Your task to perform on an android device: open wifi settings Image 0: 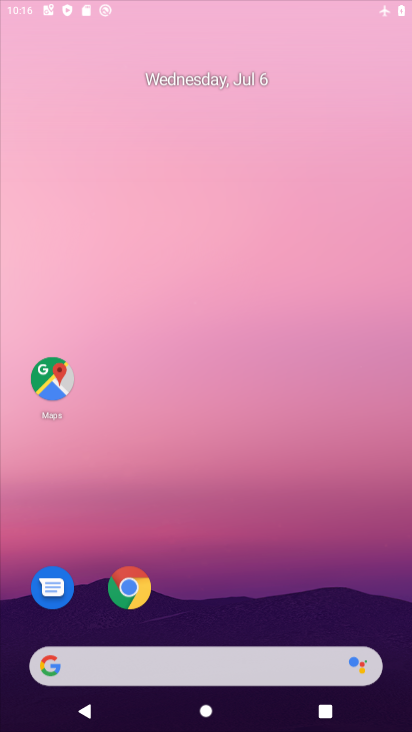
Step 0: drag from (245, 396) to (242, 214)
Your task to perform on an android device: open wifi settings Image 1: 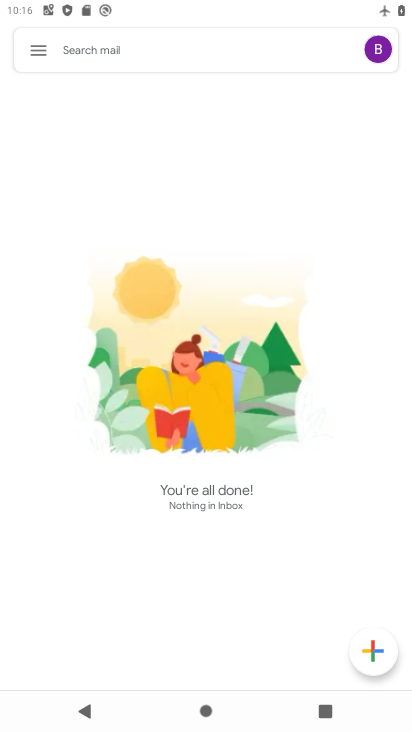
Step 1: press home button
Your task to perform on an android device: open wifi settings Image 2: 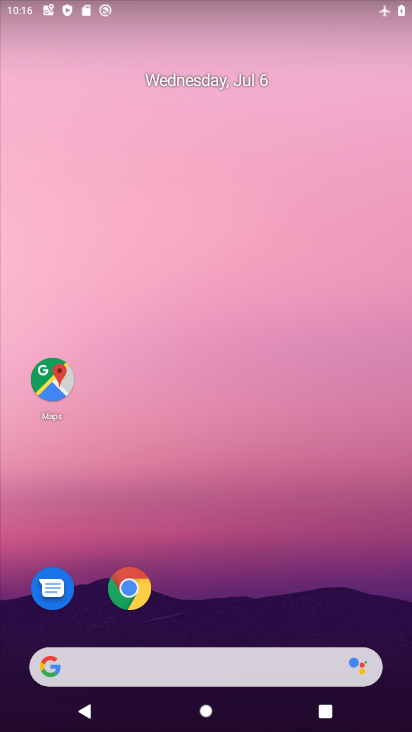
Step 2: drag from (221, 7) to (216, 543)
Your task to perform on an android device: open wifi settings Image 3: 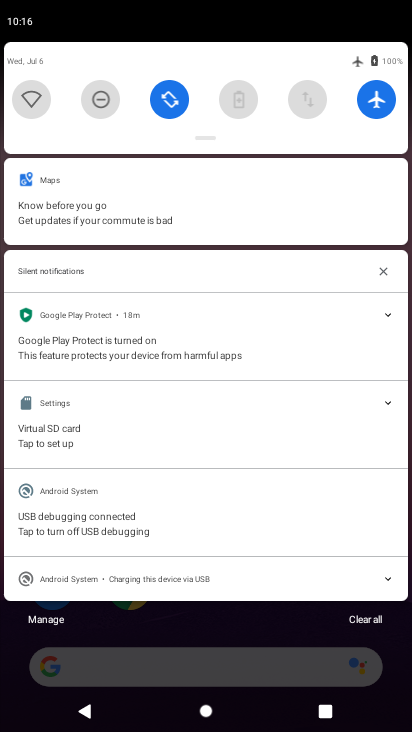
Step 3: click (24, 84)
Your task to perform on an android device: open wifi settings Image 4: 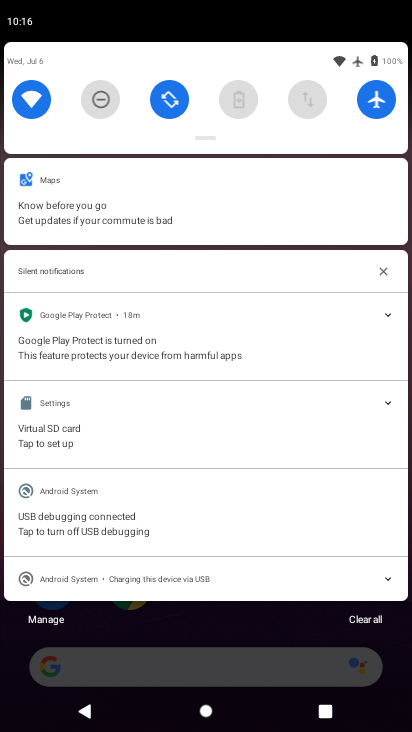
Step 4: click (21, 85)
Your task to perform on an android device: open wifi settings Image 5: 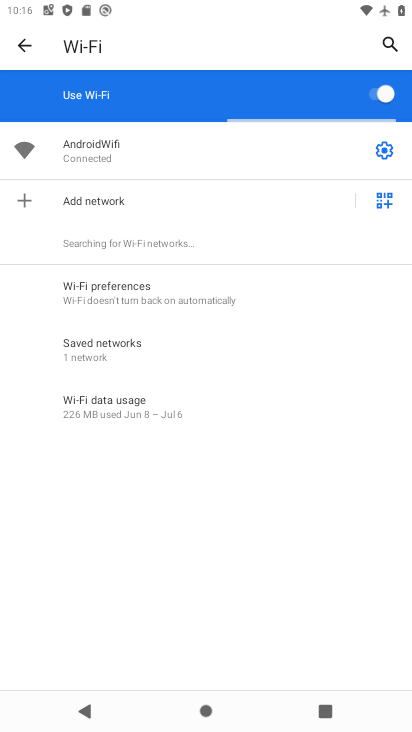
Step 5: task complete